Your task to perform on an android device: open chrome and create a bookmark for the current page Image 0: 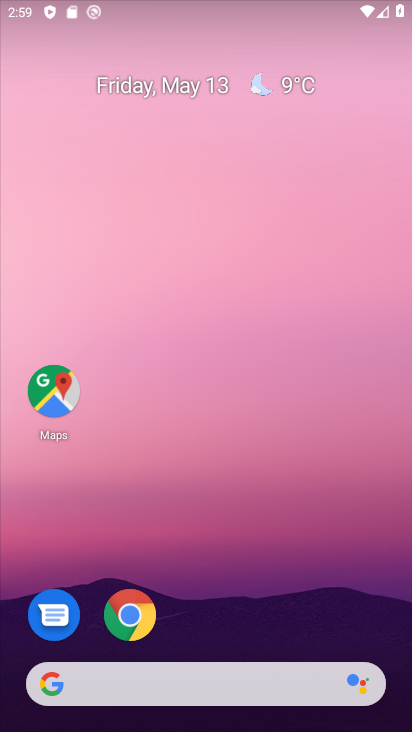
Step 0: click (401, 673)
Your task to perform on an android device: open chrome and create a bookmark for the current page Image 1: 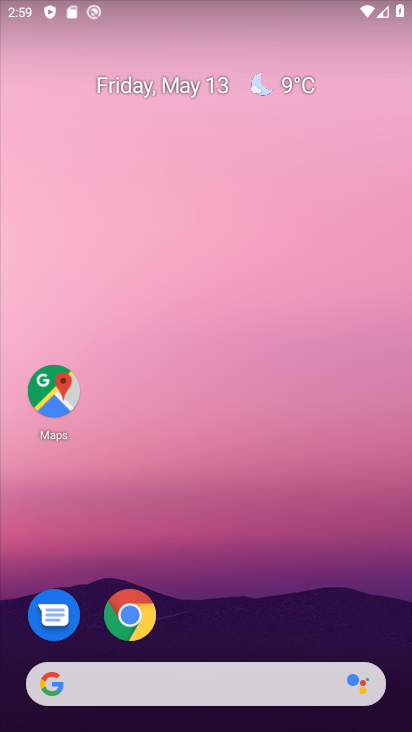
Step 1: drag from (231, 726) to (232, 154)
Your task to perform on an android device: open chrome and create a bookmark for the current page Image 2: 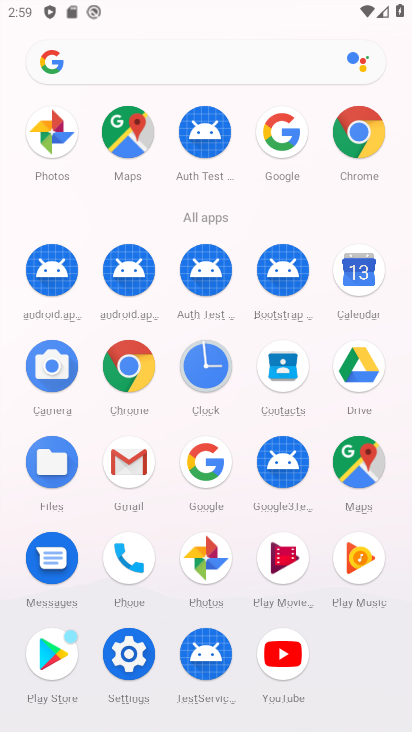
Step 2: click (362, 129)
Your task to perform on an android device: open chrome and create a bookmark for the current page Image 3: 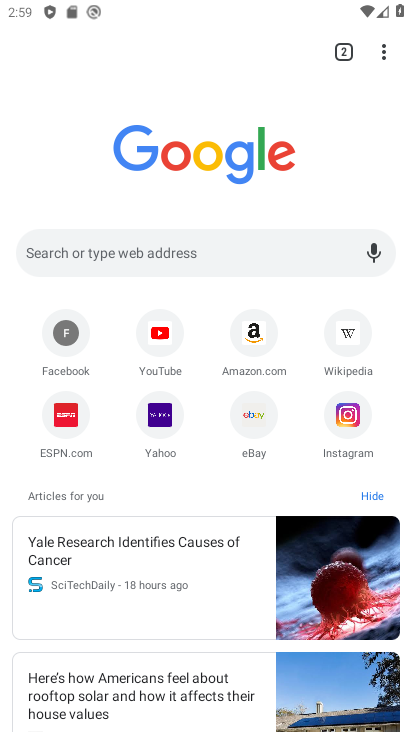
Step 3: click (384, 55)
Your task to perform on an android device: open chrome and create a bookmark for the current page Image 4: 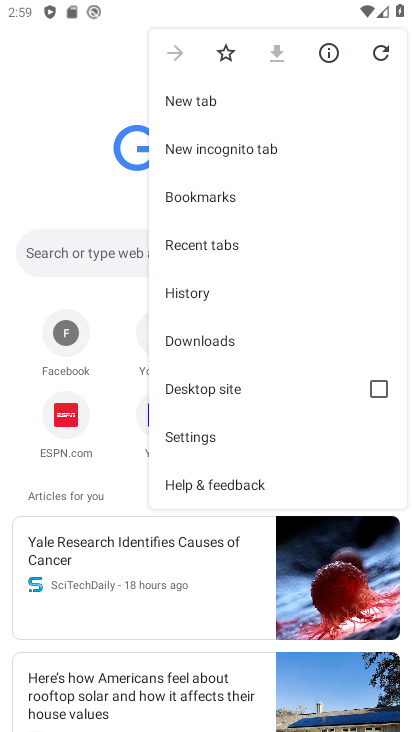
Step 4: click (226, 50)
Your task to perform on an android device: open chrome and create a bookmark for the current page Image 5: 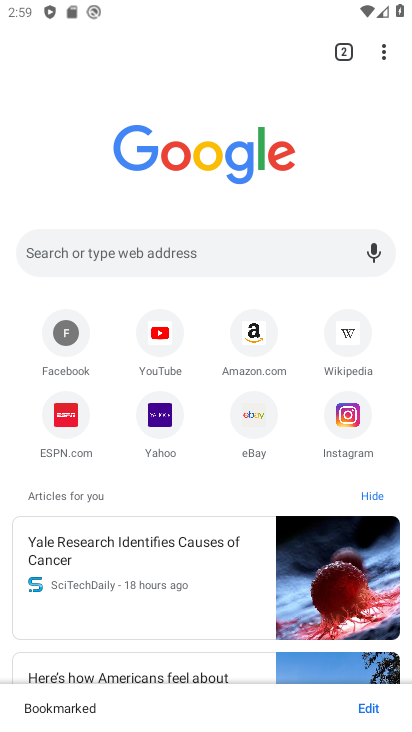
Step 5: task complete